Your task to perform on an android device: manage bookmarks in the chrome app Image 0: 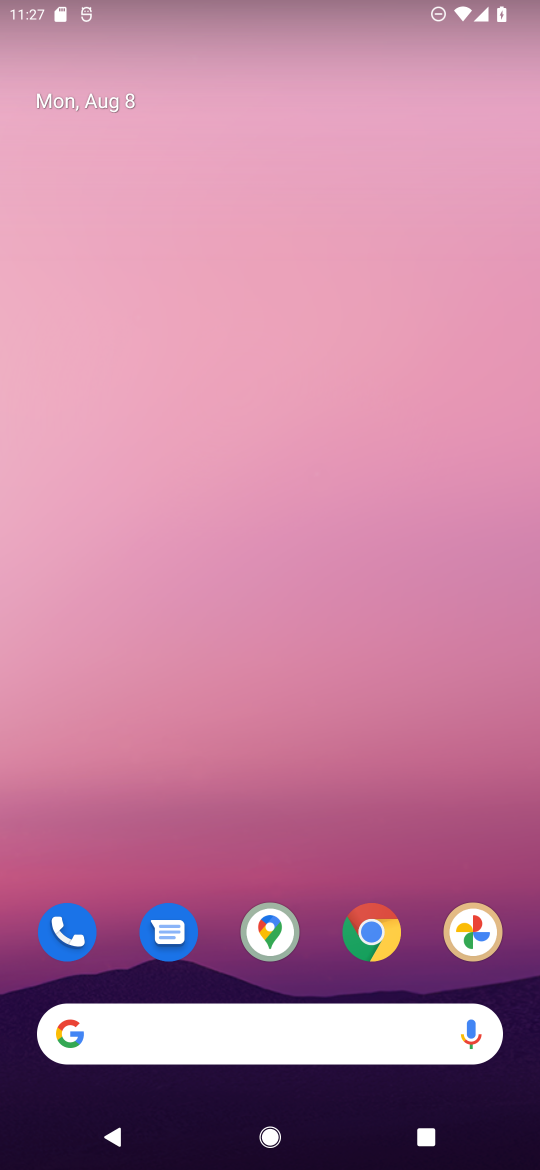
Step 0: click (376, 922)
Your task to perform on an android device: manage bookmarks in the chrome app Image 1: 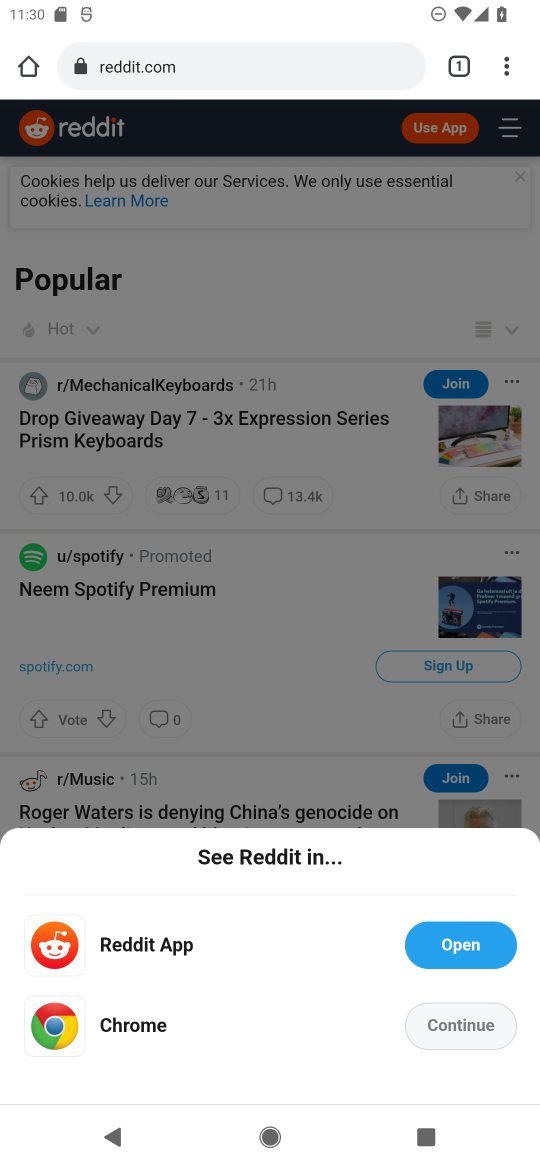
Step 1: click (509, 78)
Your task to perform on an android device: manage bookmarks in the chrome app Image 2: 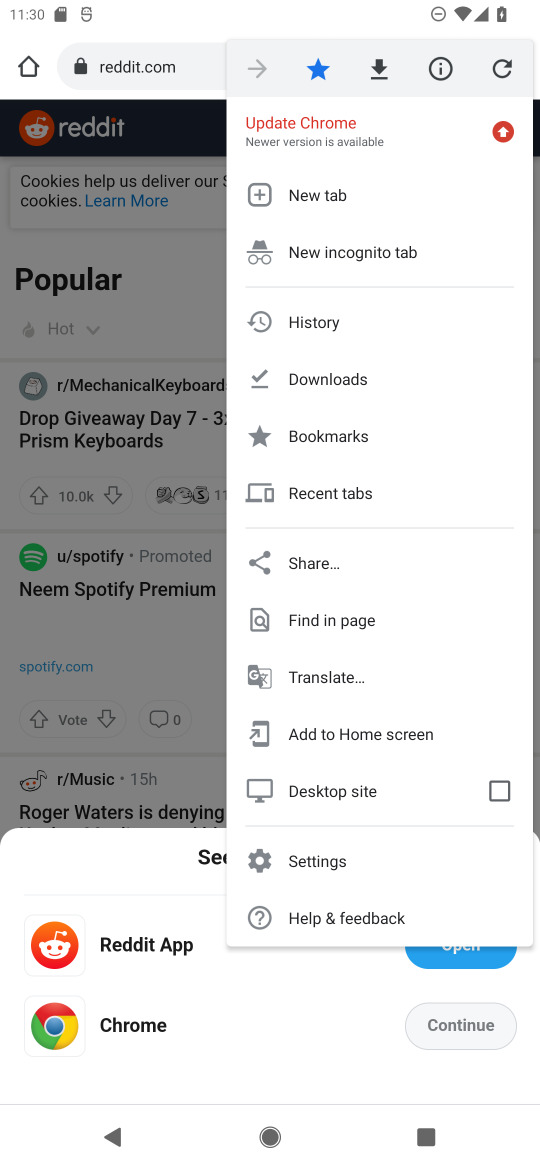
Step 2: click (361, 440)
Your task to perform on an android device: manage bookmarks in the chrome app Image 3: 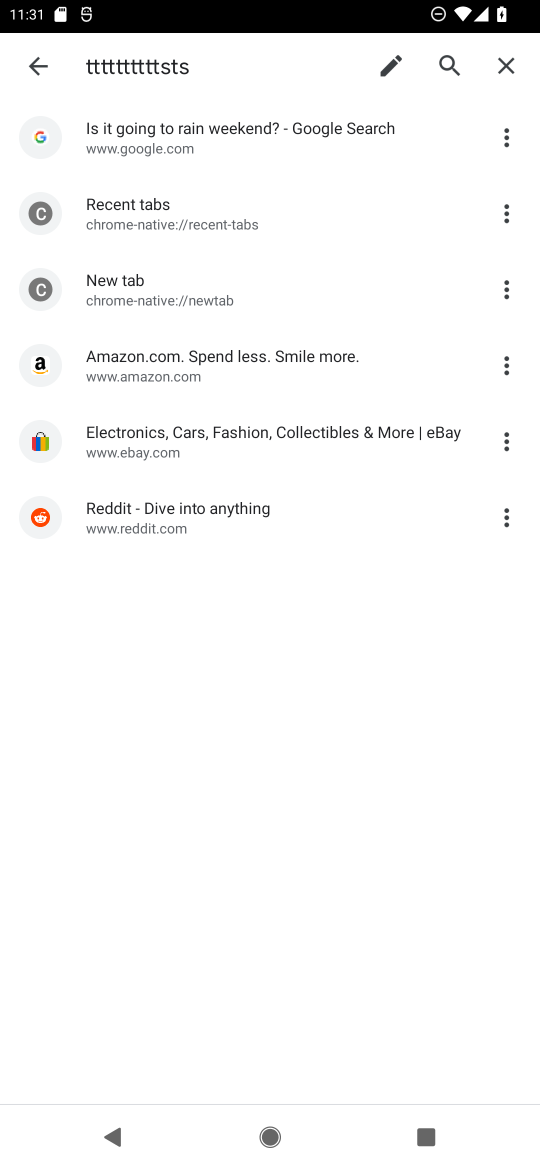
Step 3: click (516, 288)
Your task to perform on an android device: manage bookmarks in the chrome app Image 4: 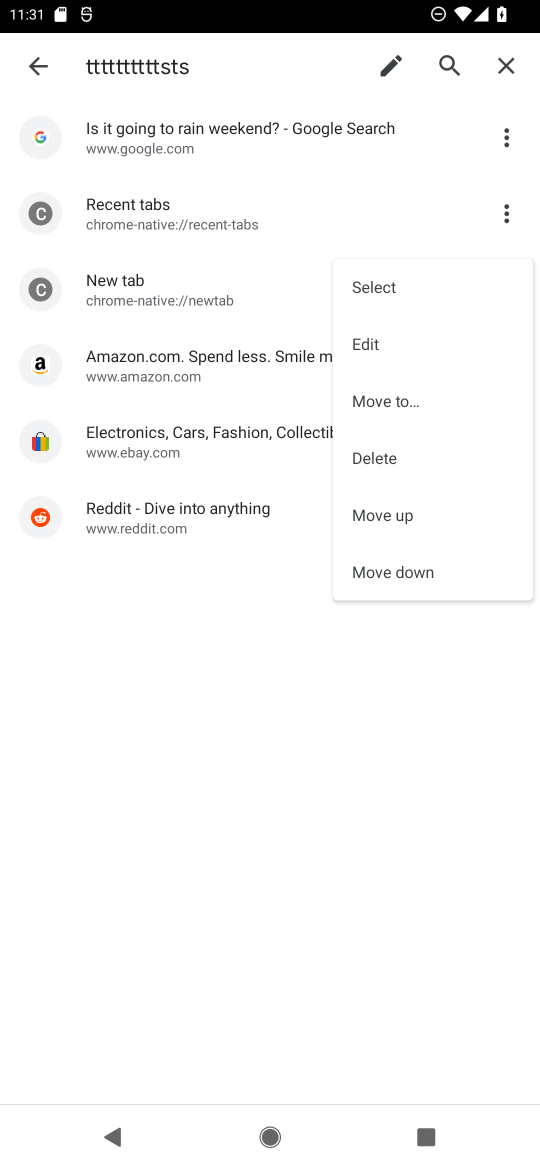
Step 4: click (396, 469)
Your task to perform on an android device: manage bookmarks in the chrome app Image 5: 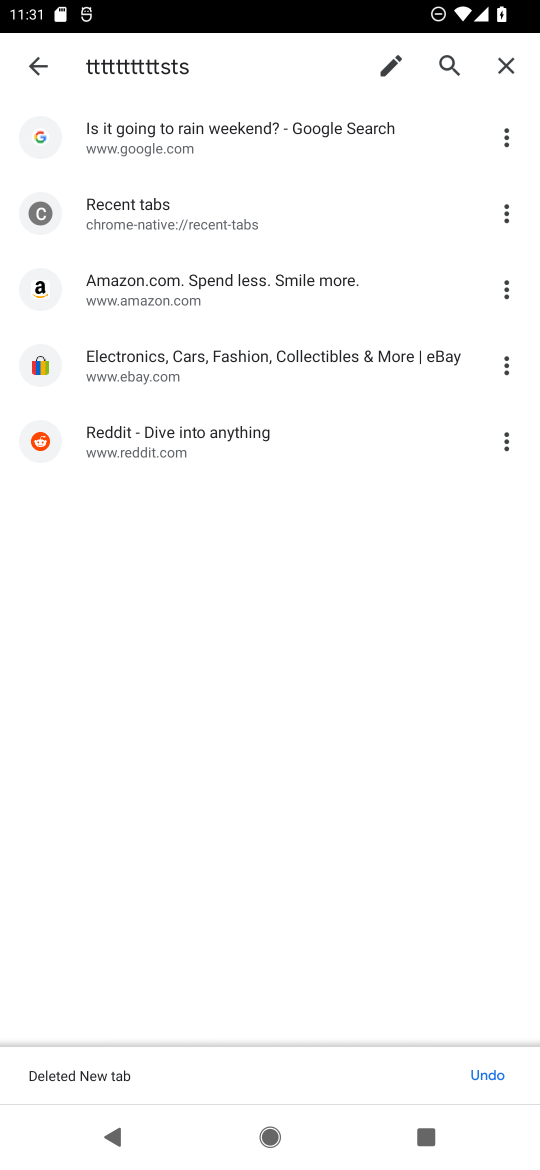
Step 5: task complete